Your task to perform on an android device: turn on wifi Image 0: 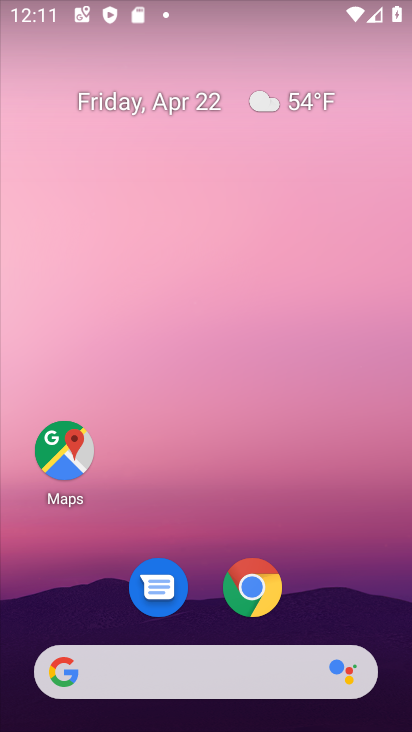
Step 0: drag from (368, 604) to (341, 3)
Your task to perform on an android device: turn on wifi Image 1: 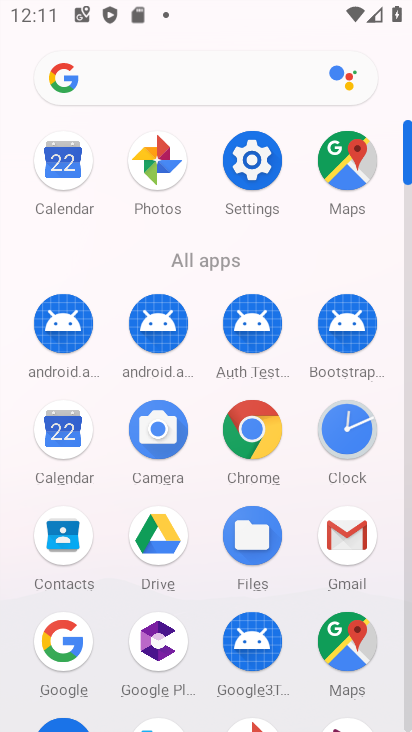
Step 1: click (245, 161)
Your task to perform on an android device: turn on wifi Image 2: 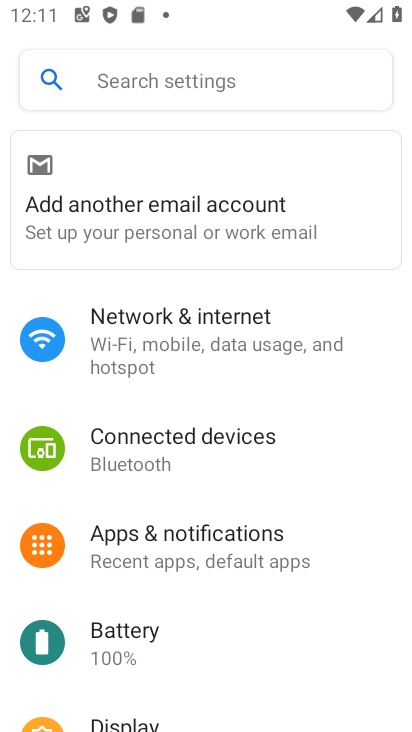
Step 2: click (173, 317)
Your task to perform on an android device: turn on wifi Image 3: 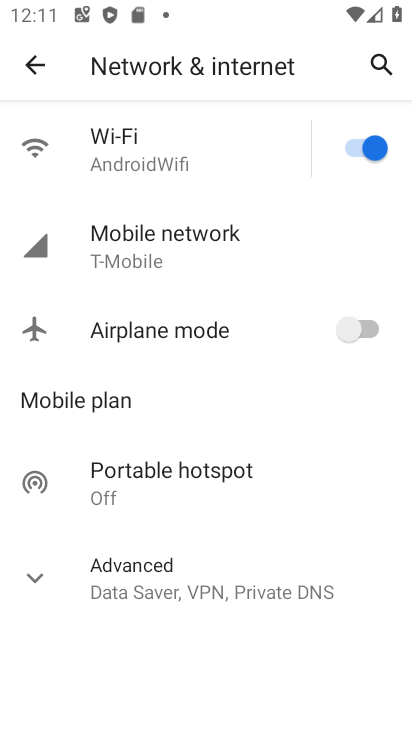
Step 3: task complete